Your task to perform on an android device: Go to ESPN.com Image 0: 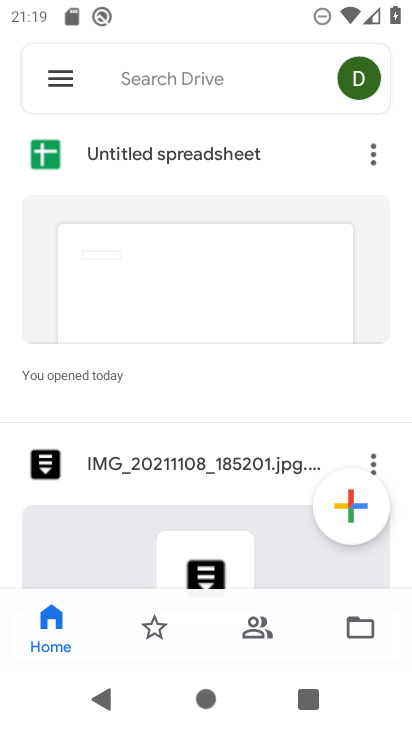
Step 0: press home button
Your task to perform on an android device: Go to ESPN.com Image 1: 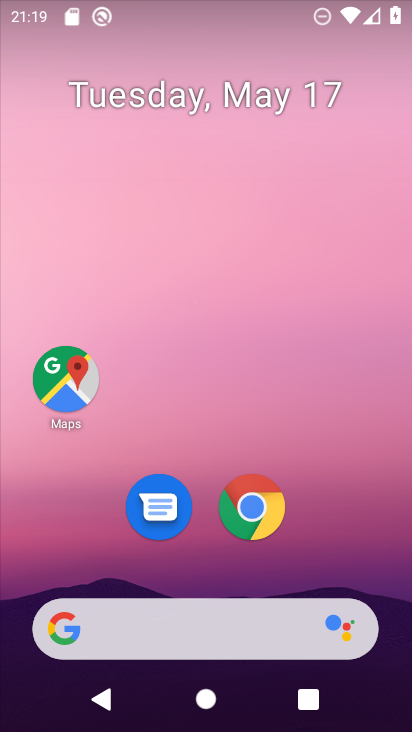
Step 1: click (250, 509)
Your task to perform on an android device: Go to ESPN.com Image 2: 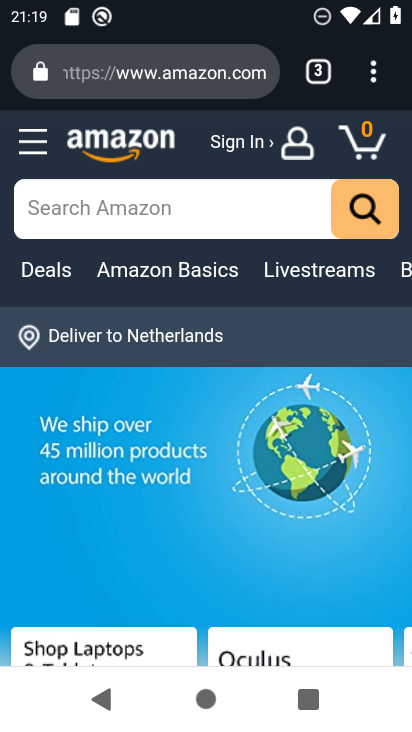
Step 2: click (114, 77)
Your task to perform on an android device: Go to ESPN.com Image 3: 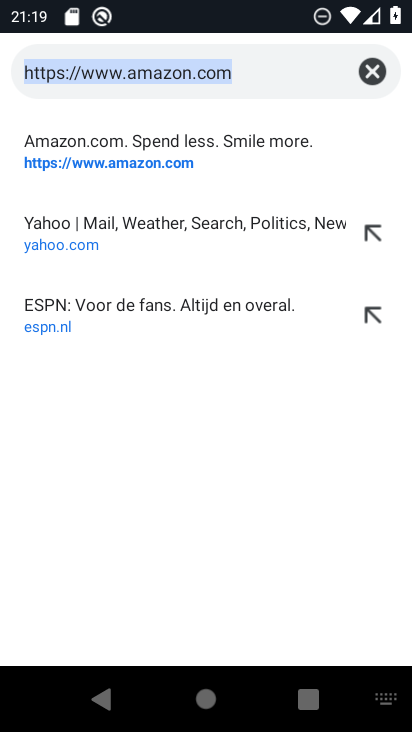
Step 3: click (50, 313)
Your task to perform on an android device: Go to ESPN.com Image 4: 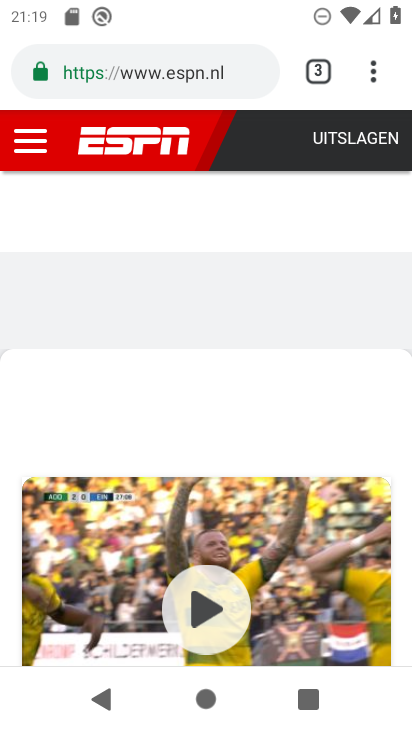
Step 4: task complete